Your task to perform on an android device: Clear all items from cart on bestbuy.com. Image 0: 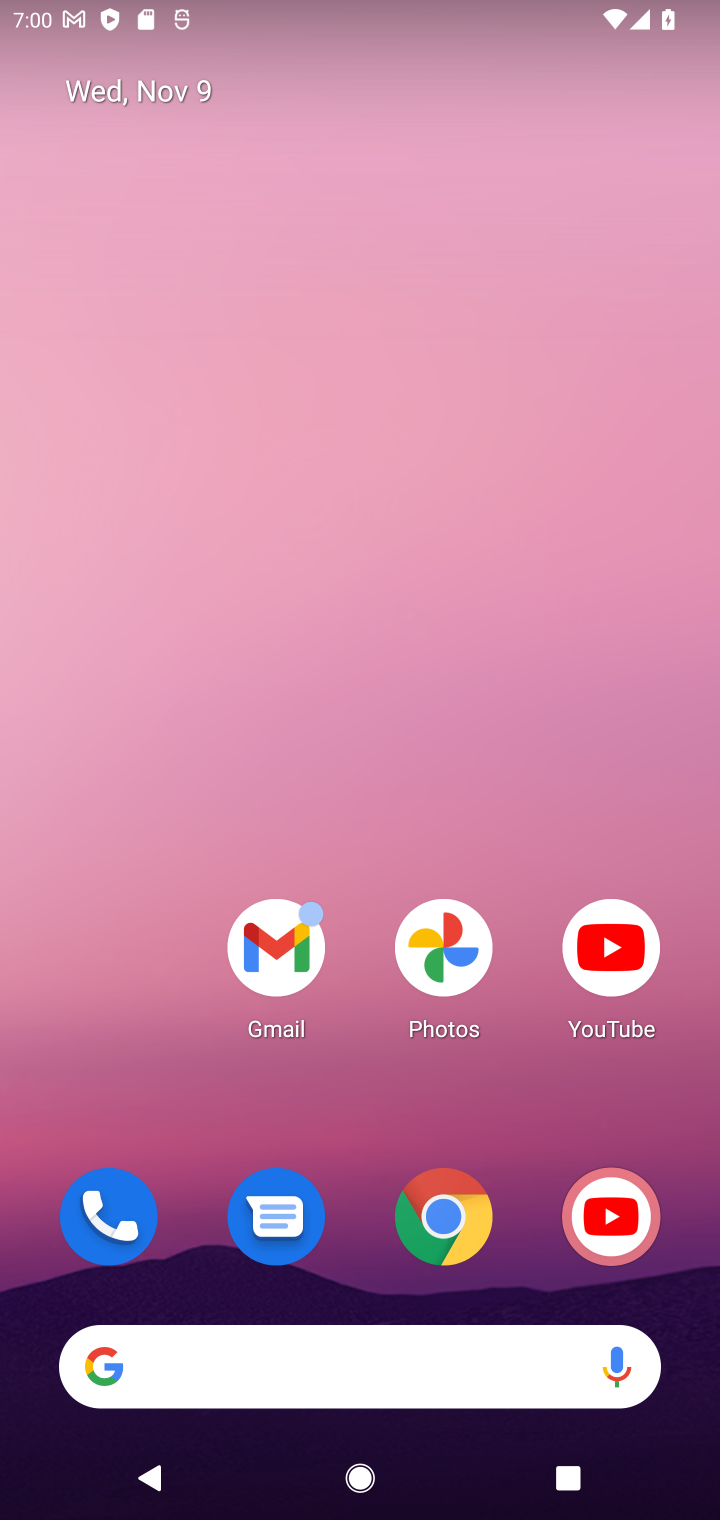
Step 0: drag from (356, 1088) to (398, 81)
Your task to perform on an android device: Clear all items from cart on bestbuy.com. Image 1: 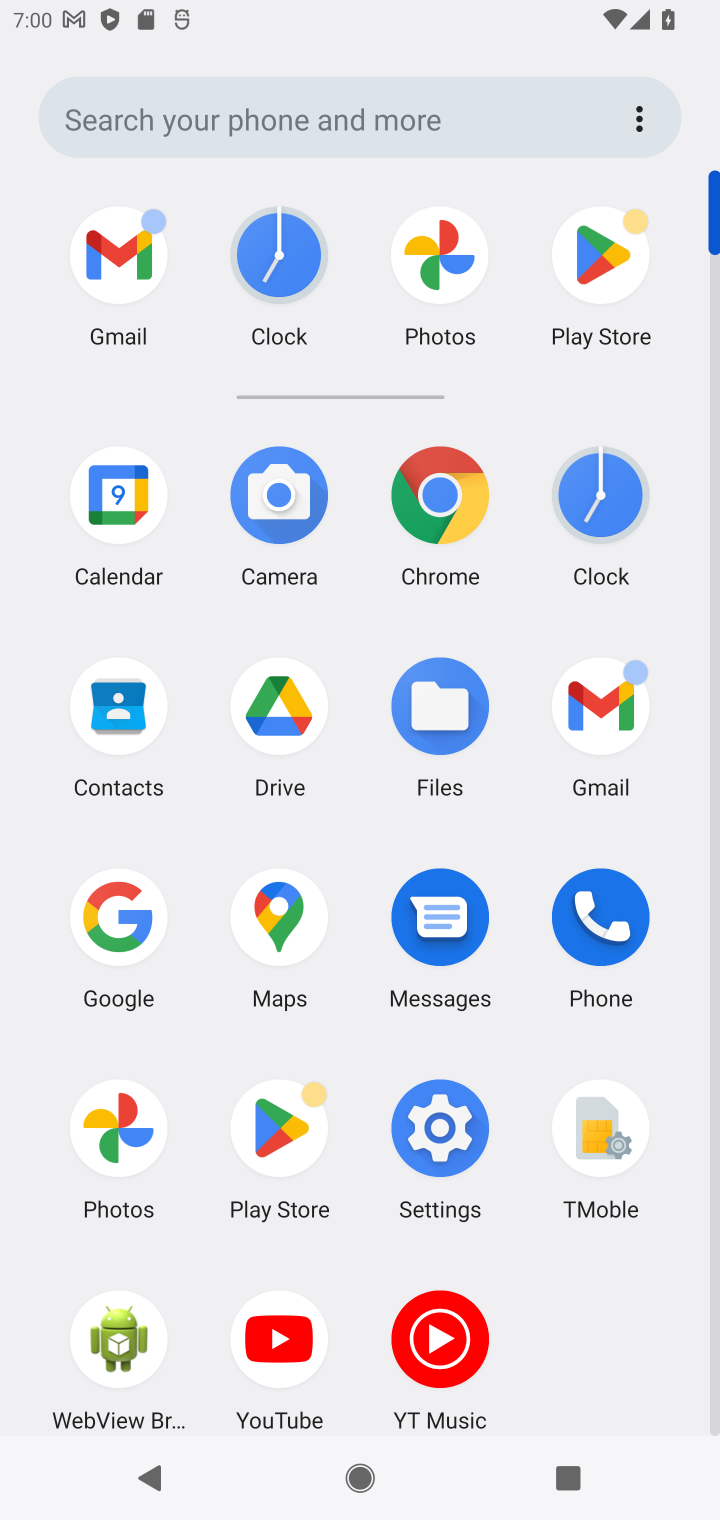
Step 1: click (431, 505)
Your task to perform on an android device: Clear all items from cart on bestbuy.com. Image 2: 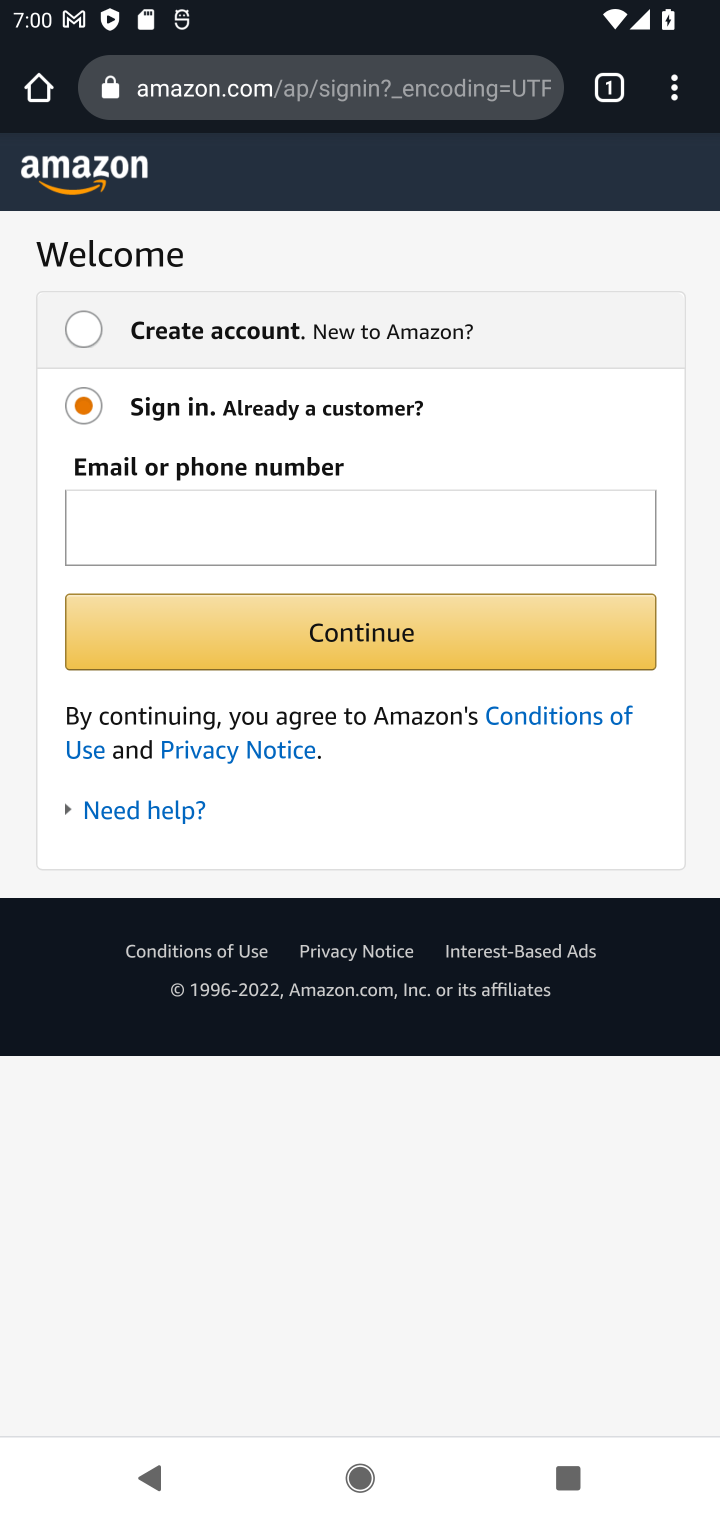
Step 2: click (450, 104)
Your task to perform on an android device: Clear all items from cart on bestbuy.com. Image 3: 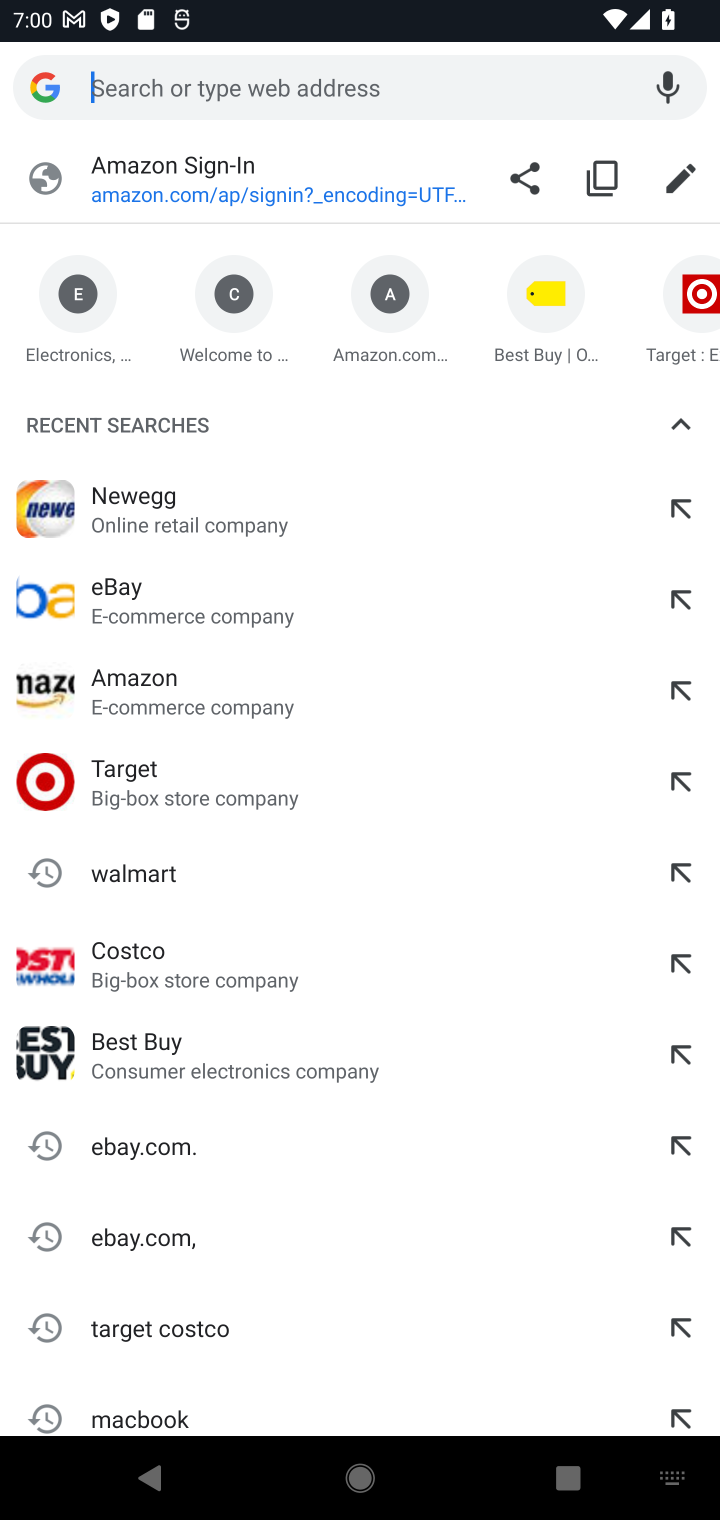
Step 3: type "bestbuy.com"
Your task to perform on an android device: Clear all items from cart on bestbuy.com. Image 4: 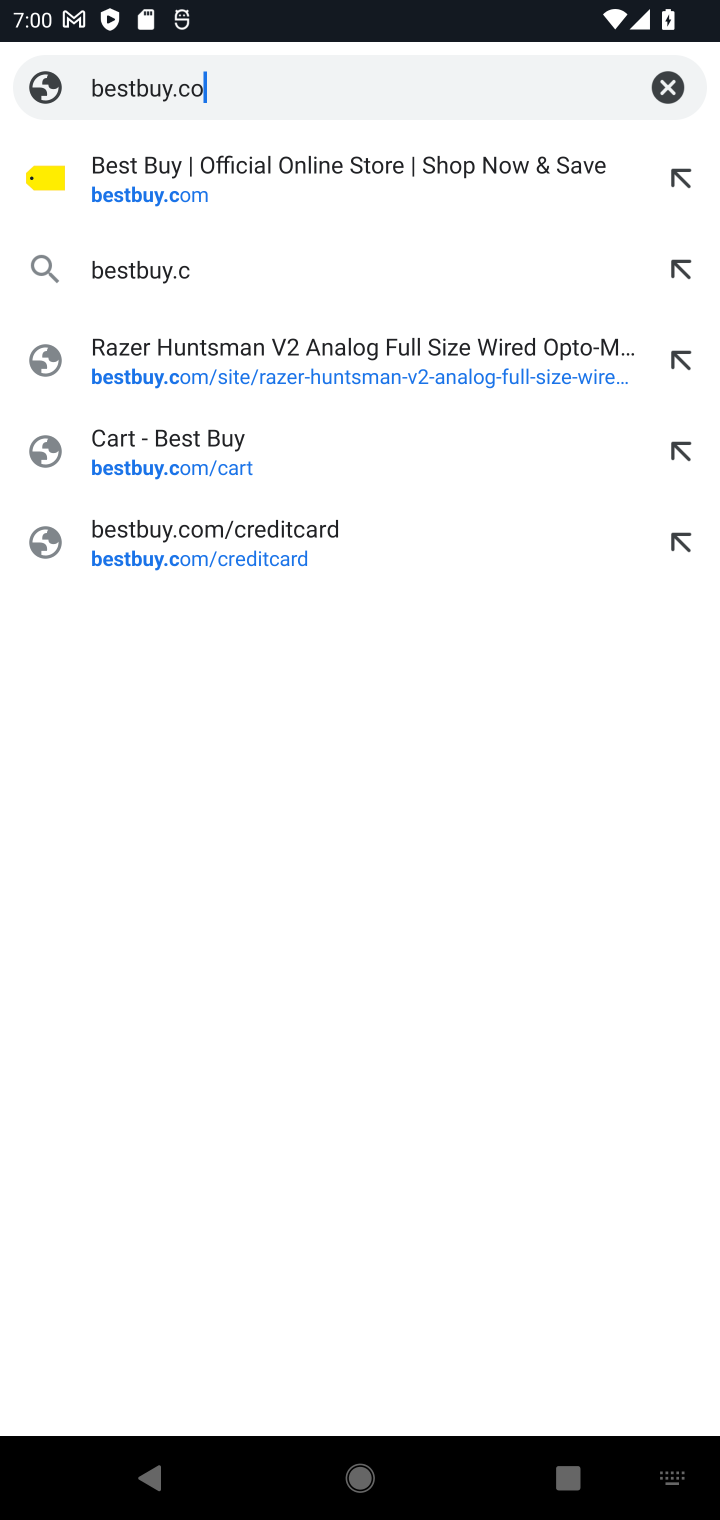
Step 4: press enter
Your task to perform on an android device: Clear all items from cart on bestbuy.com. Image 5: 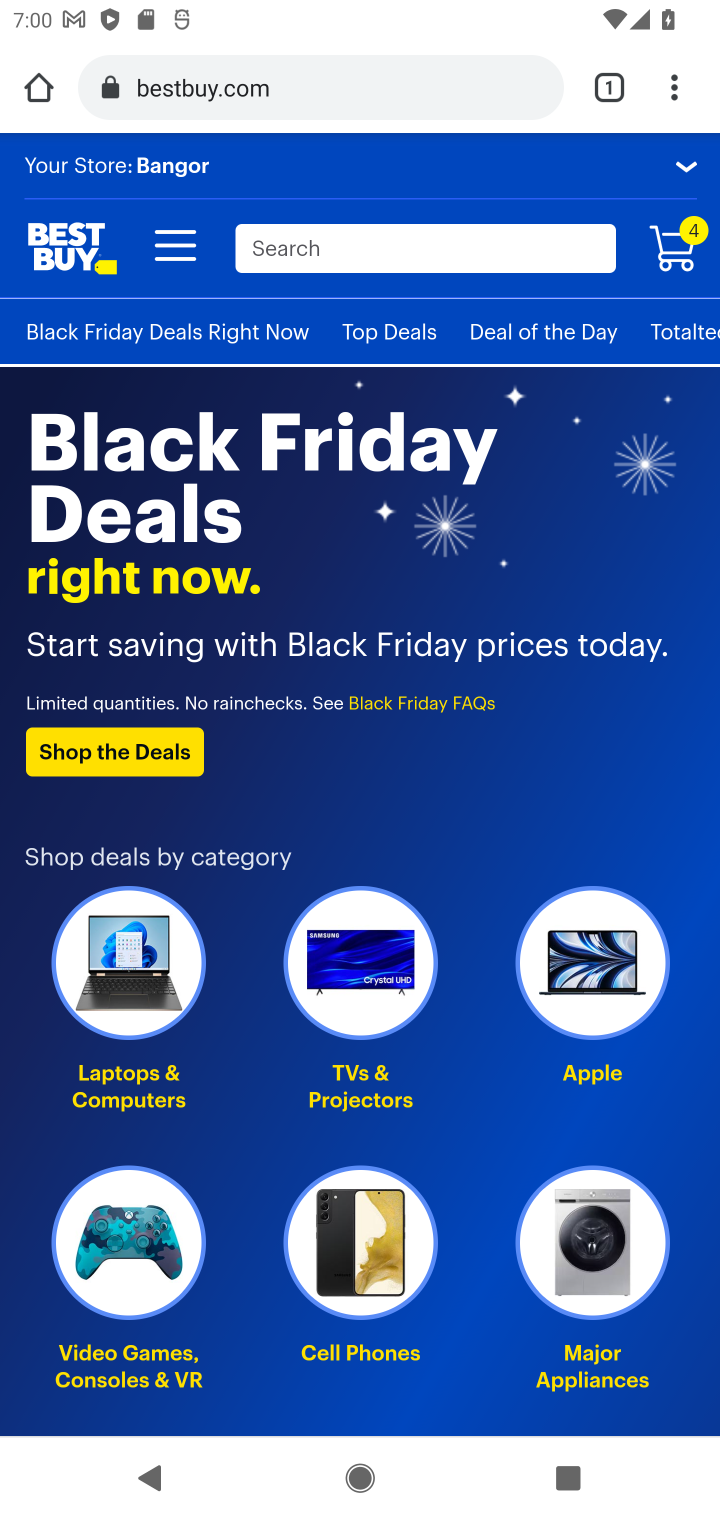
Step 5: click (670, 244)
Your task to perform on an android device: Clear all items from cart on bestbuy.com. Image 6: 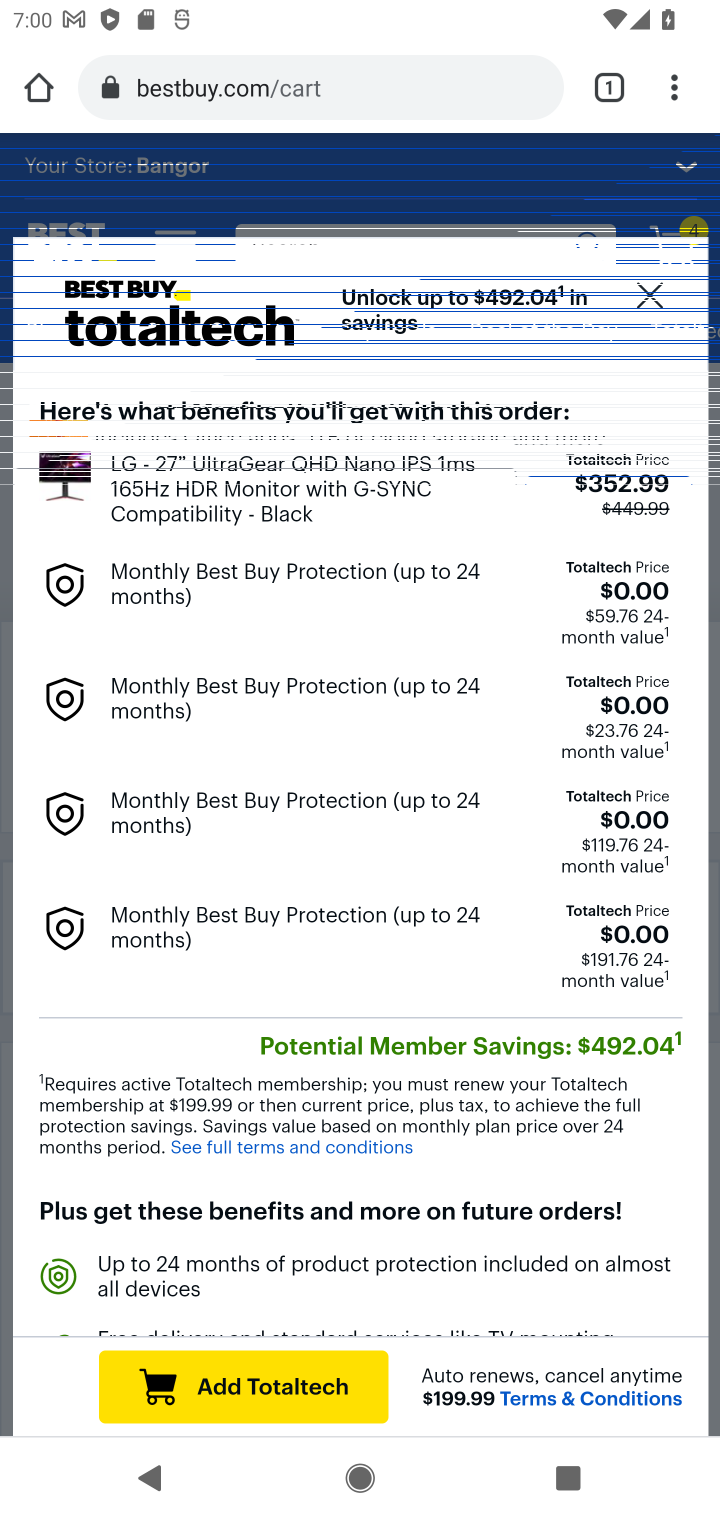
Step 6: click (640, 275)
Your task to perform on an android device: Clear all items from cart on bestbuy.com. Image 7: 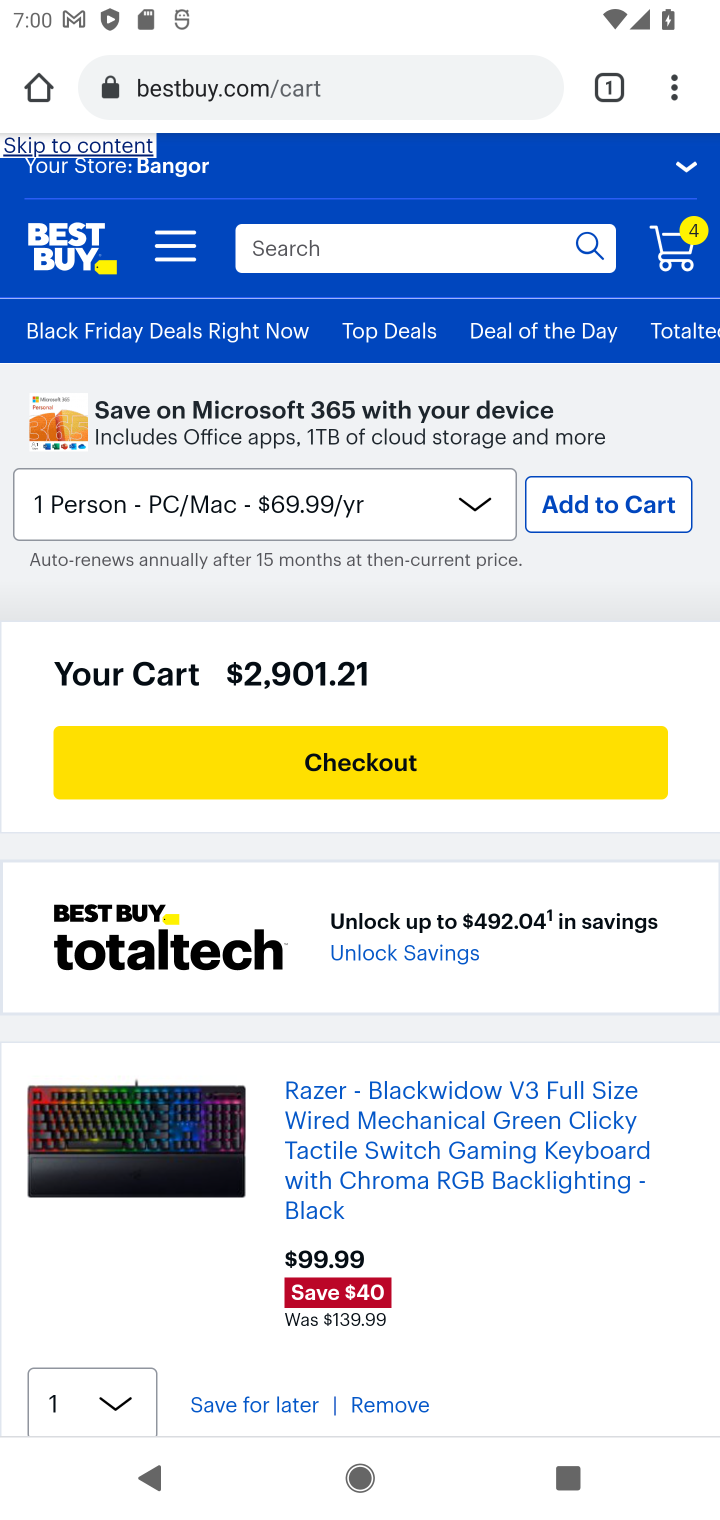
Step 7: drag from (499, 844) to (532, 302)
Your task to perform on an android device: Clear all items from cart on bestbuy.com. Image 8: 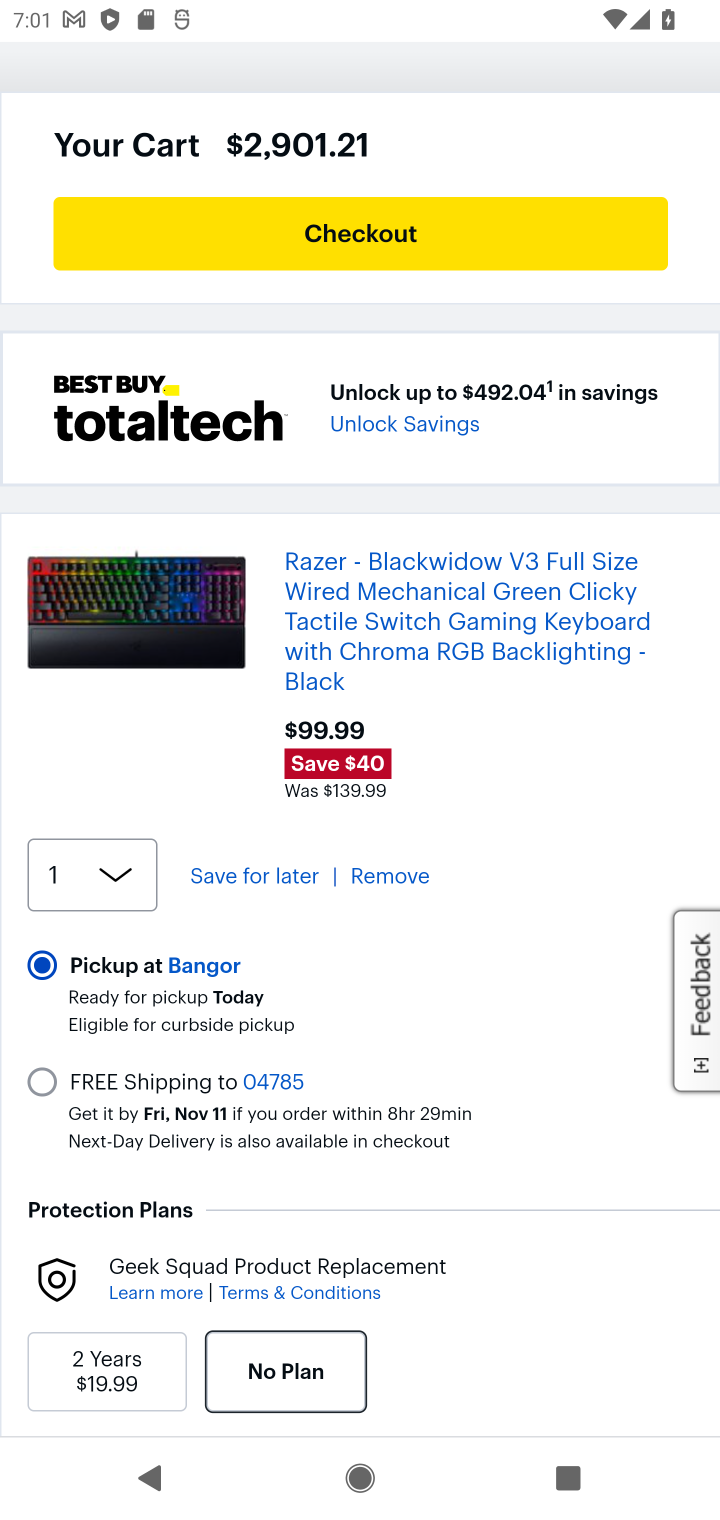
Step 8: click (370, 886)
Your task to perform on an android device: Clear all items from cart on bestbuy.com. Image 9: 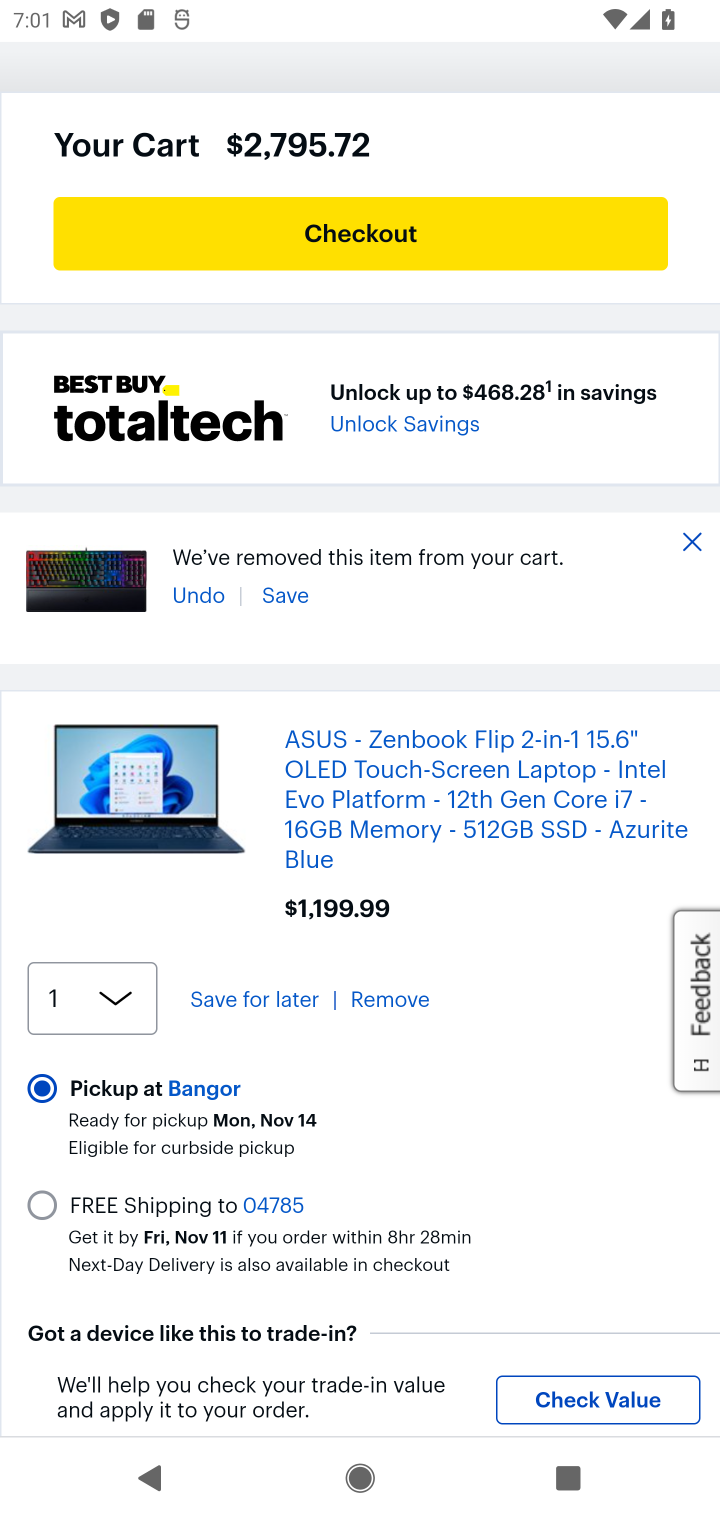
Step 9: click (404, 996)
Your task to perform on an android device: Clear all items from cart on bestbuy.com. Image 10: 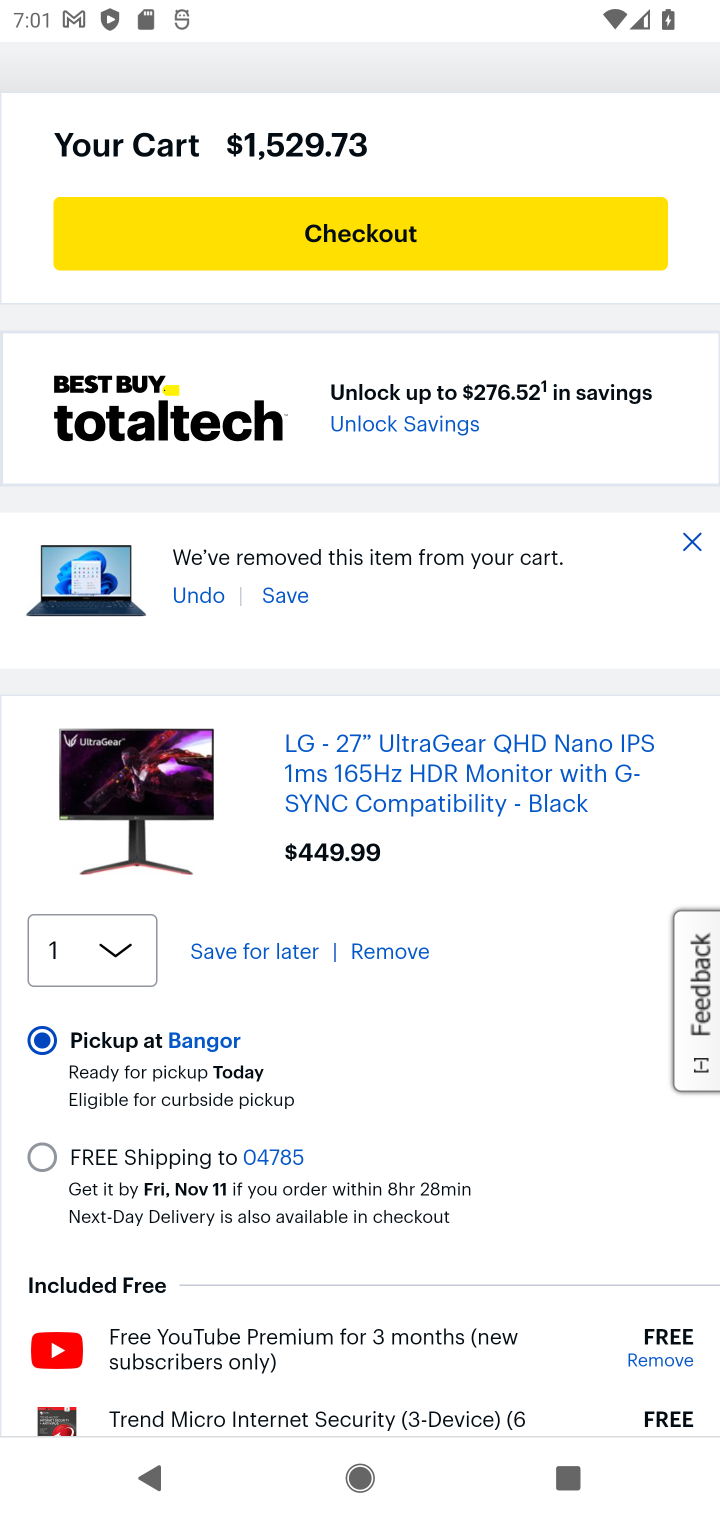
Step 10: click (381, 944)
Your task to perform on an android device: Clear all items from cart on bestbuy.com. Image 11: 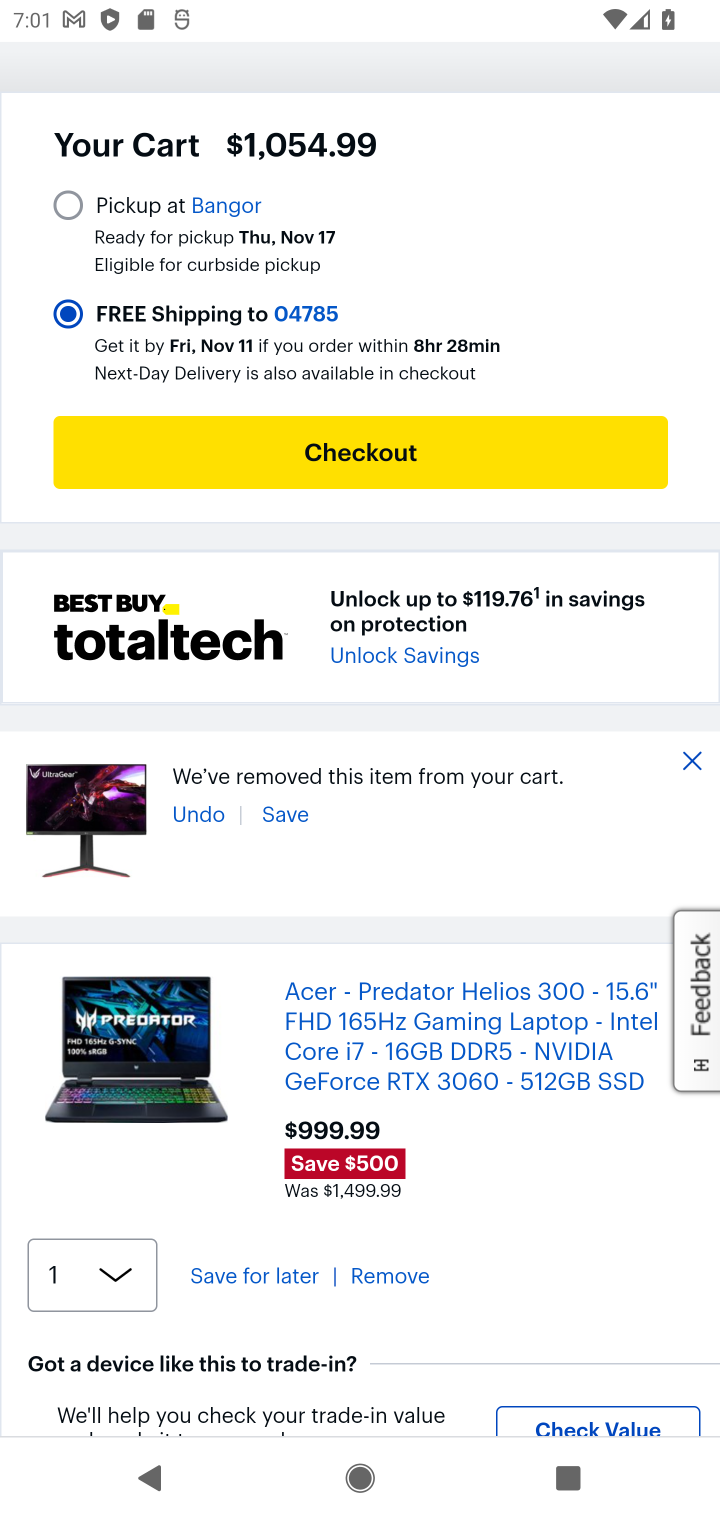
Step 11: click (385, 1272)
Your task to perform on an android device: Clear all items from cart on bestbuy.com. Image 12: 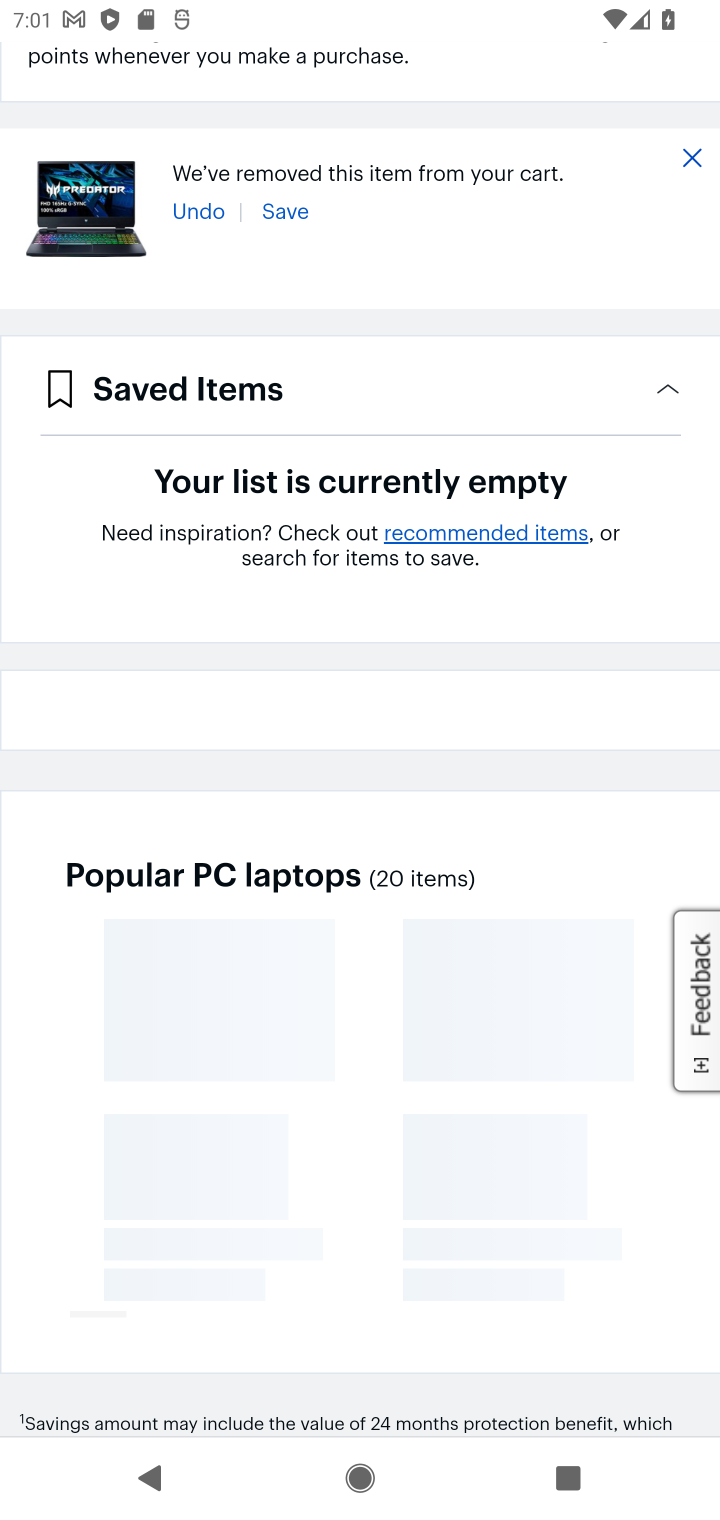
Step 12: click (699, 160)
Your task to perform on an android device: Clear all items from cart on bestbuy.com. Image 13: 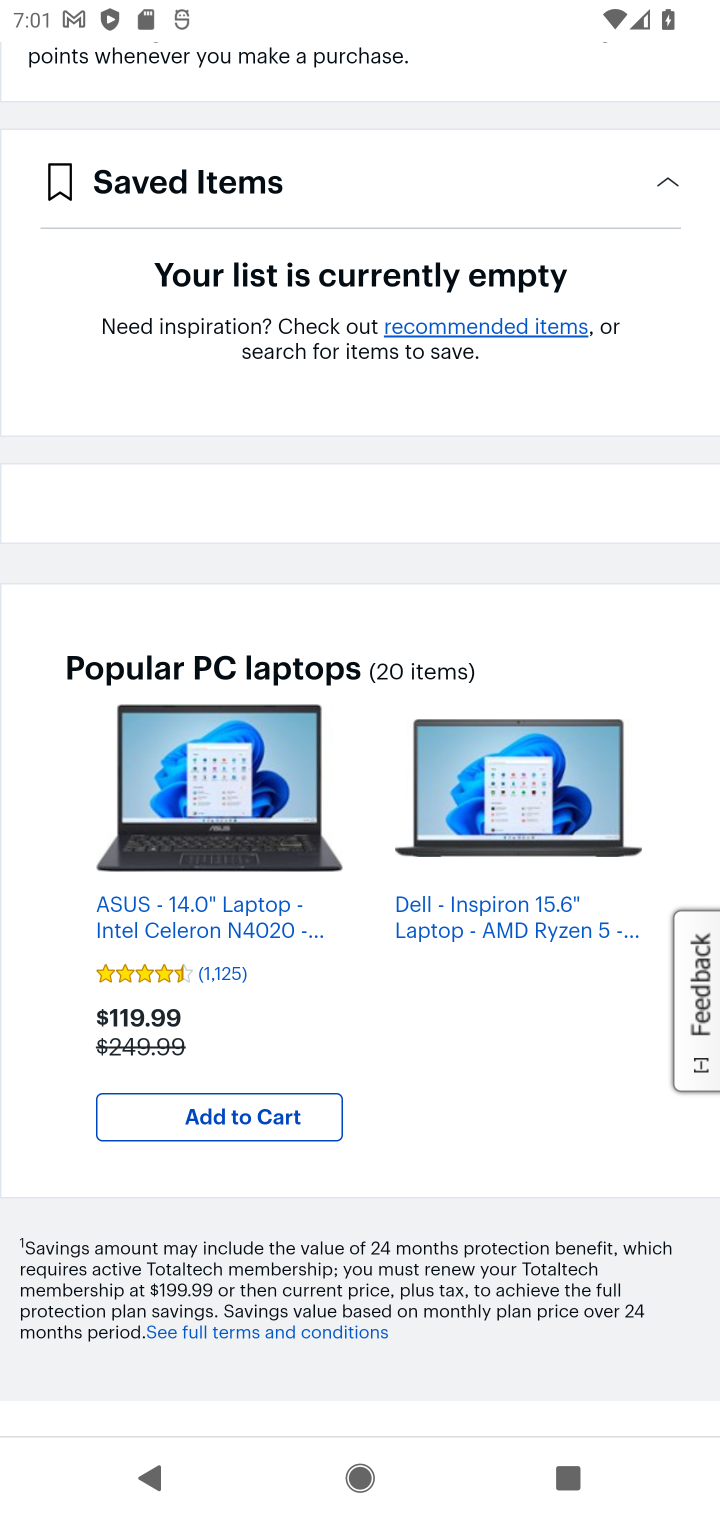
Step 13: task complete